Your task to perform on an android device: turn off translation in the chrome app Image 0: 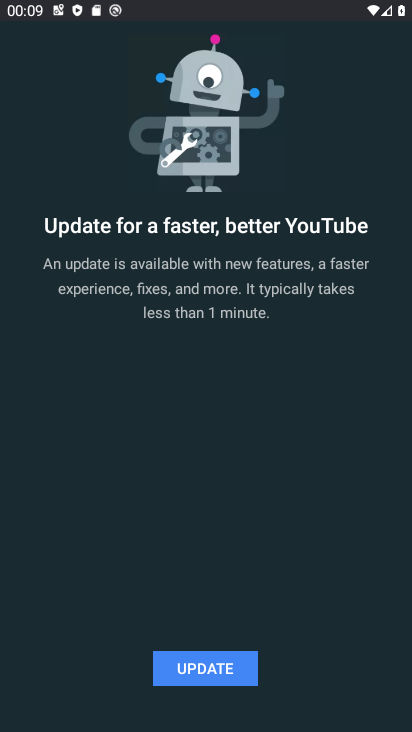
Step 0: press home button
Your task to perform on an android device: turn off translation in the chrome app Image 1: 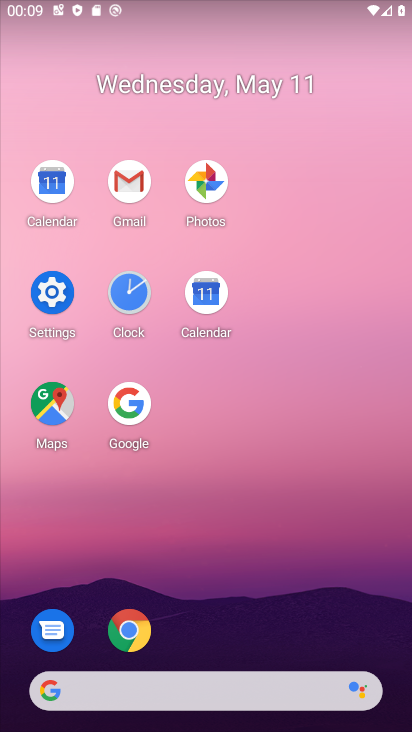
Step 1: click (132, 638)
Your task to perform on an android device: turn off translation in the chrome app Image 2: 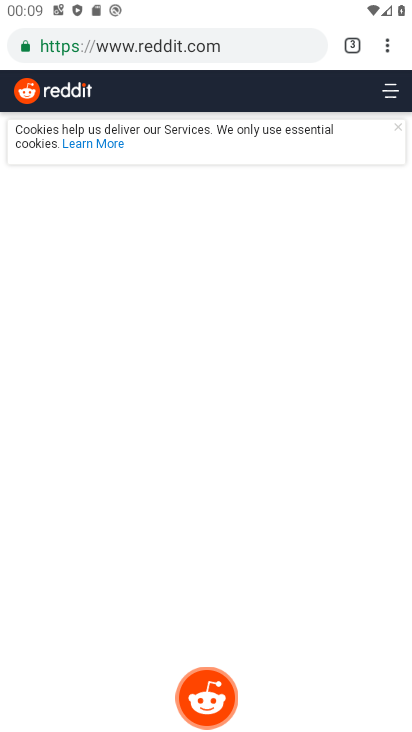
Step 2: click (394, 41)
Your task to perform on an android device: turn off translation in the chrome app Image 3: 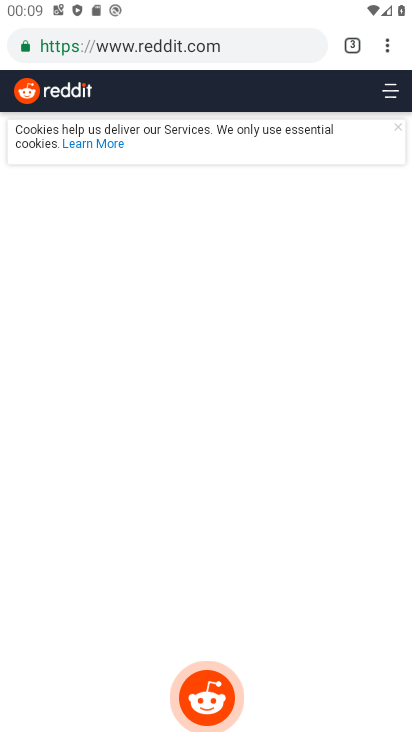
Step 3: click (384, 40)
Your task to perform on an android device: turn off translation in the chrome app Image 4: 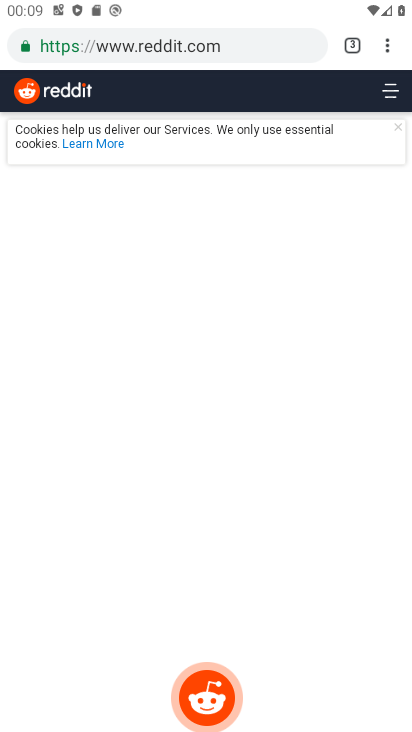
Step 4: click (387, 45)
Your task to perform on an android device: turn off translation in the chrome app Image 5: 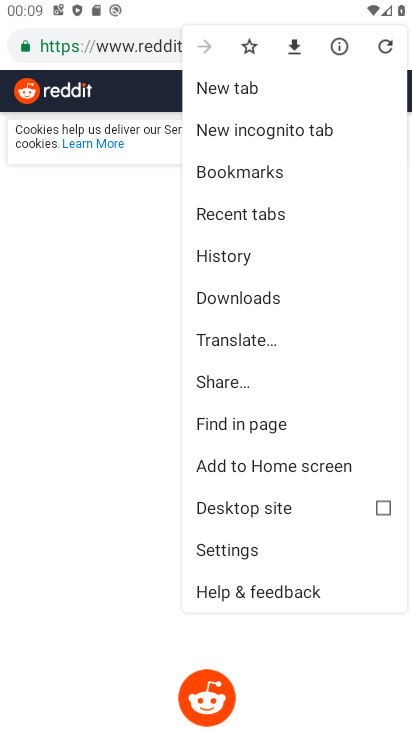
Step 5: click (260, 547)
Your task to perform on an android device: turn off translation in the chrome app Image 6: 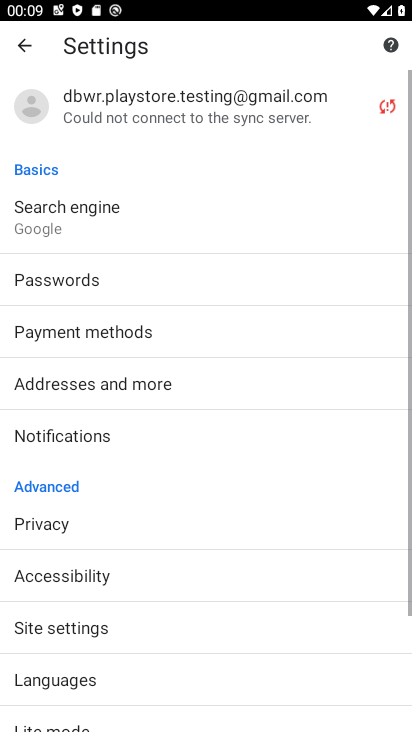
Step 6: drag from (260, 547) to (336, 141)
Your task to perform on an android device: turn off translation in the chrome app Image 7: 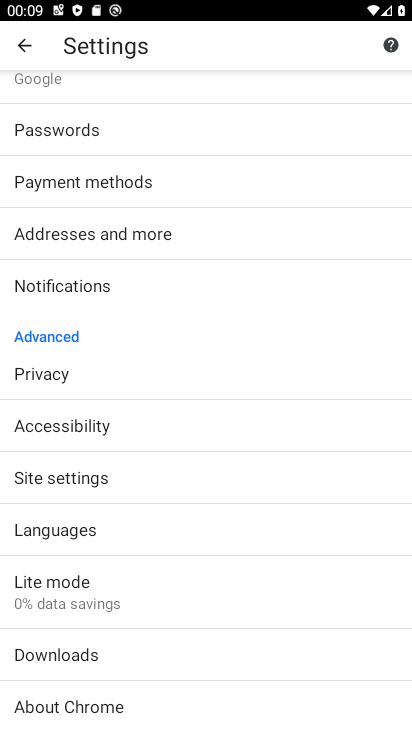
Step 7: click (147, 529)
Your task to perform on an android device: turn off translation in the chrome app Image 8: 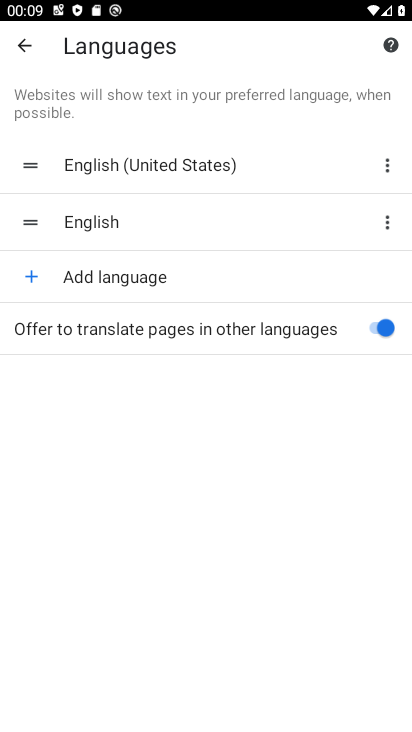
Step 8: click (390, 326)
Your task to perform on an android device: turn off translation in the chrome app Image 9: 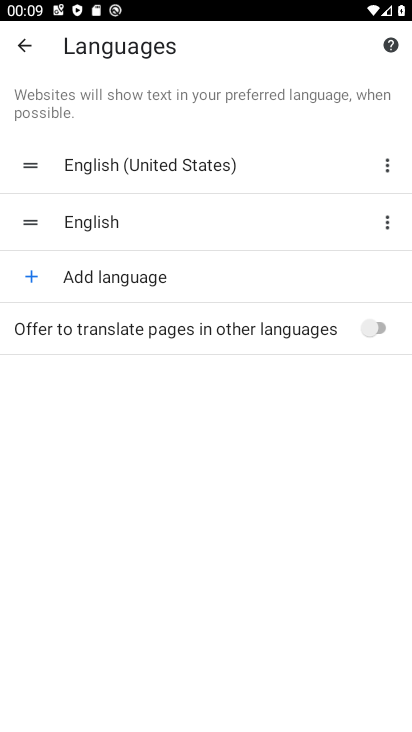
Step 9: task complete